Your task to perform on an android device: add a label to a message in the gmail app Image 0: 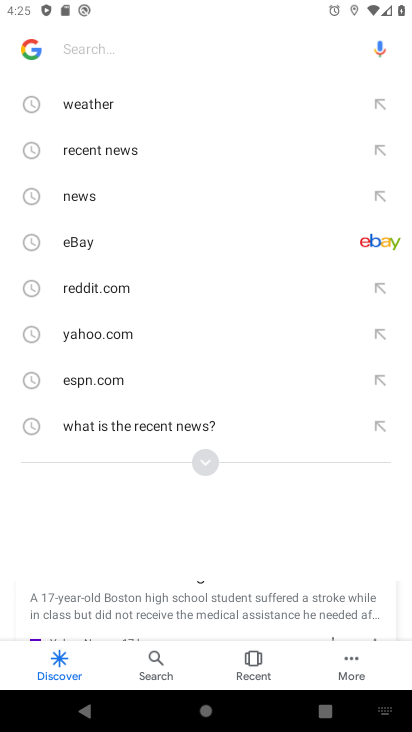
Step 0: press home button
Your task to perform on an android device: add a label to a message in the gmail app Image 1: 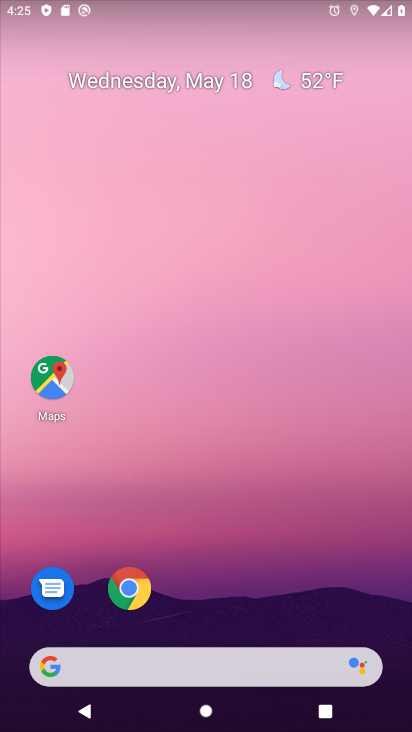
Step 1: drag from (235, 571) to (196, 103)
Your task to perform on an android device: add a label to a message in the gmail app Image 2: 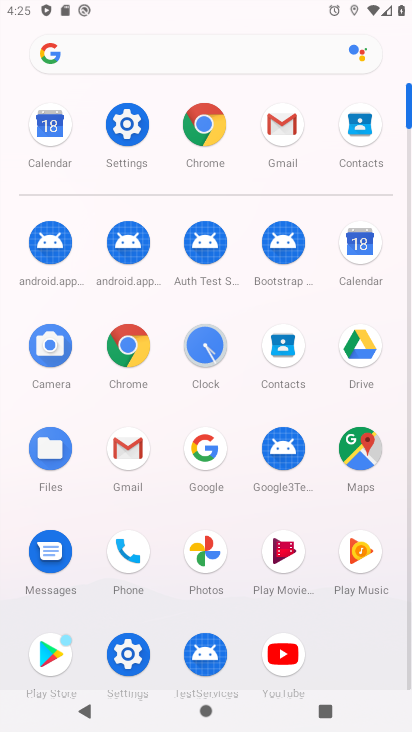
Step 2: click (294, 147)
Your task to perform on an android device: add a label to a message in the gmail app Image 3: 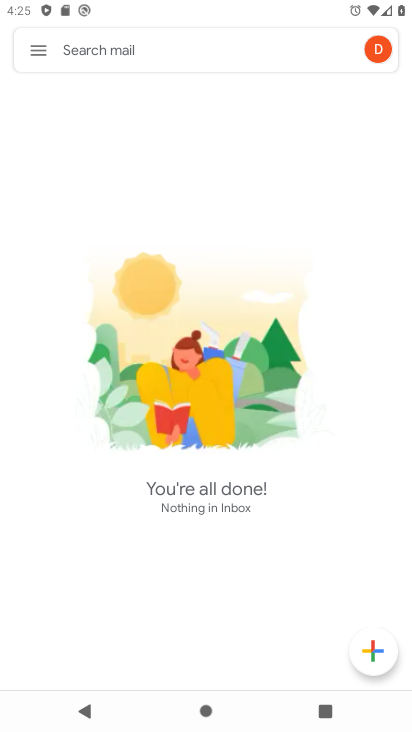
Step 3: click (34, 54)
Your task to perform on an android device: add a label to a message in the gmail app Image 4: 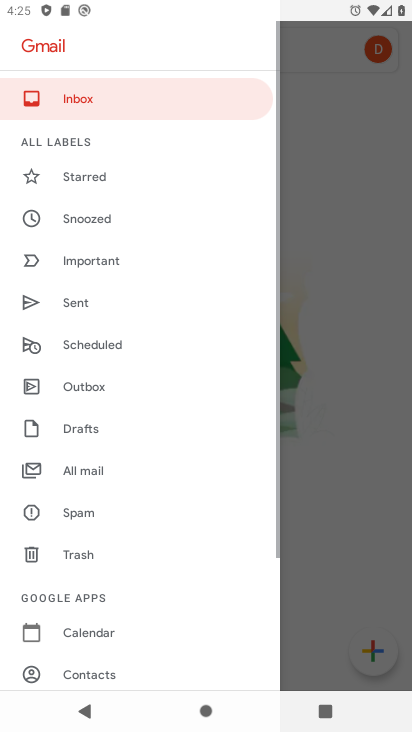
Step 4: click (108, 470)
Your task to perform on an android device: add a label to a message in the gmail app Image 5: 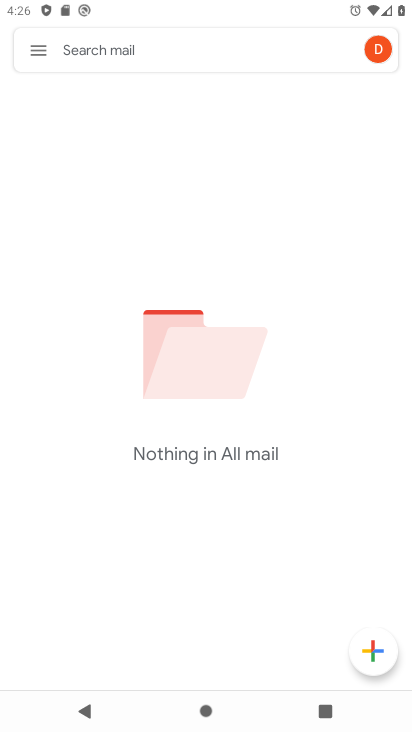
Step 5: task complete